Your task to perform on an android device: delete the emails in spam in the gmail app Image 0: 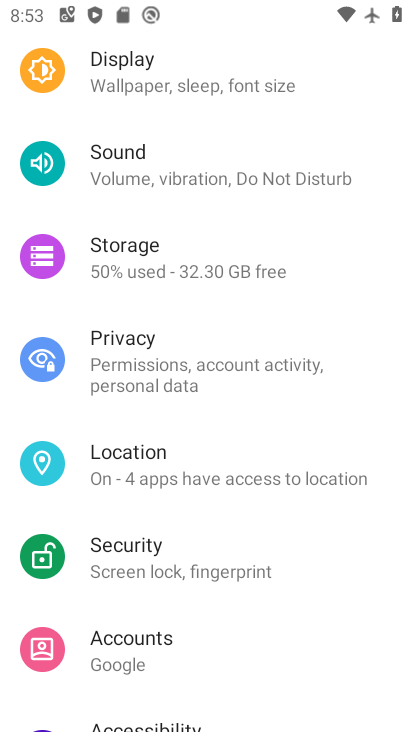
Step 0: press home button
Your task to perform on an android device: delete the emails in spam in the gmail app Image 1: 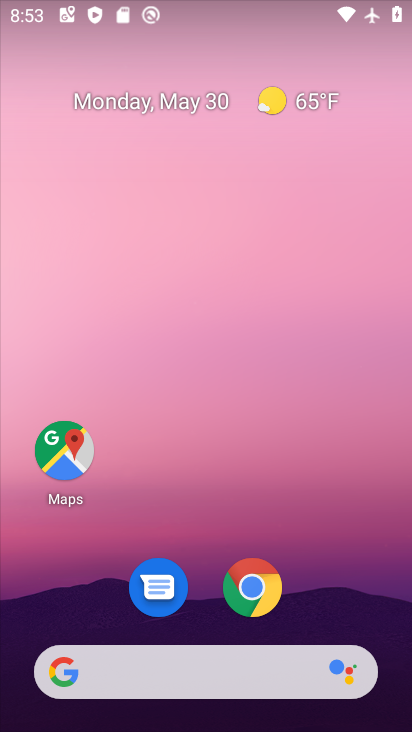
Step 1: drag from (206, 675) to (313, 277)
Your task to perform on an android device: delete the emails in spam in the gmail app Image 2: 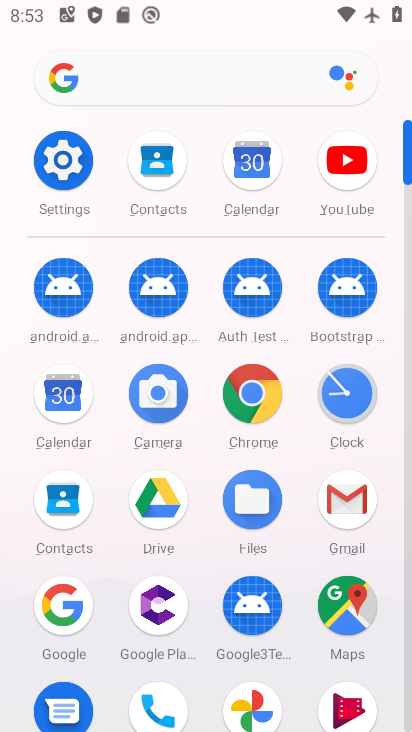
Step 2: click (352, 496)
Your task to perform on an android device: delete the emails in spam in the gmail app Image 3: 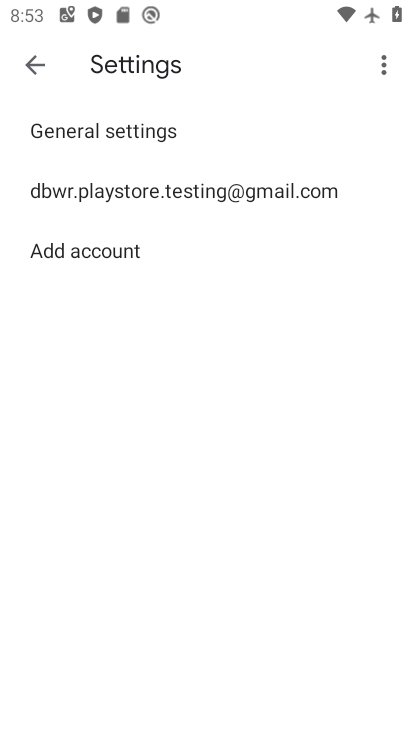
Step 3: click (40, 60)
Your task to perform on an android device: delete the emails in spam in the gmail app Image 4: 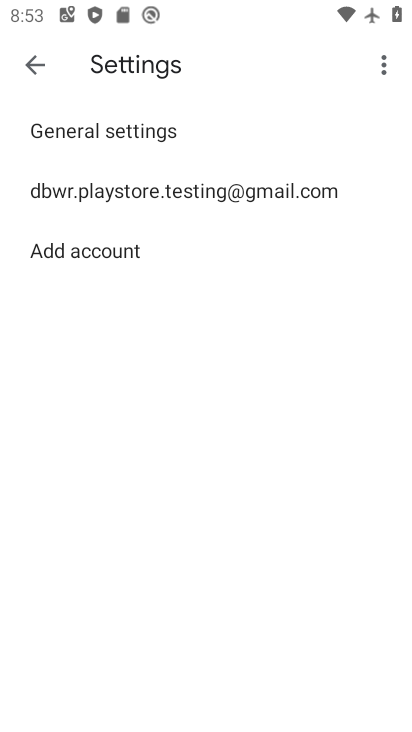
Step 4: click (34, 60)
Your task to perform on an android device: delete the emails in spam in the gmail app Image 5: 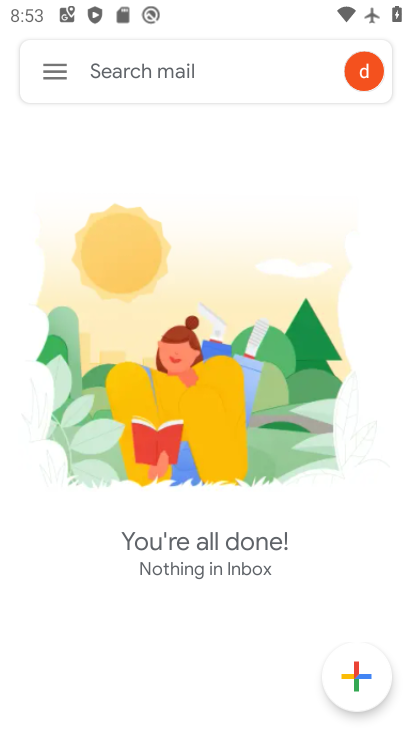
Step 5: click (45, 65)
Your task to perform on an android device: delete the emails in spam in the gmail app Image 6: 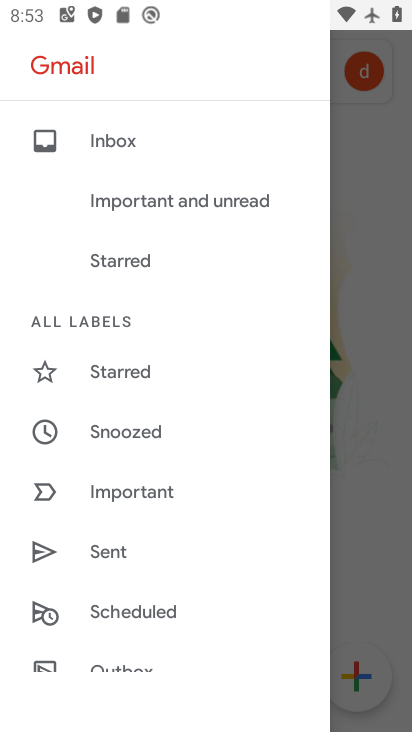
Step 6: drag from (181, 612) to (274, 210)
Your task to perform on an android device: delete the emails in spam in the gmail app Image 7: 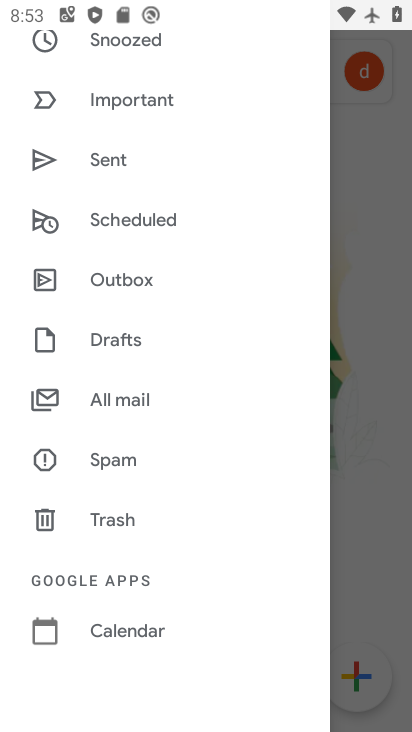
Step 7: click (110, 453)
Your task to perform on an android device: delete the emails in spam in the gmail app Image 8: 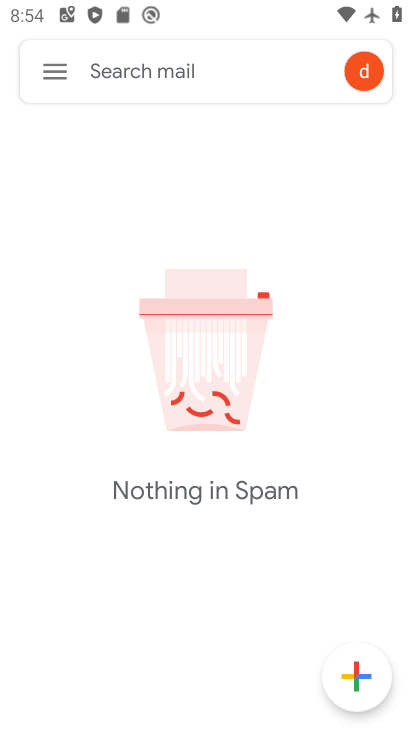
Step 8: task complete